Your task to perform on an android device: Open location settings Image 0: 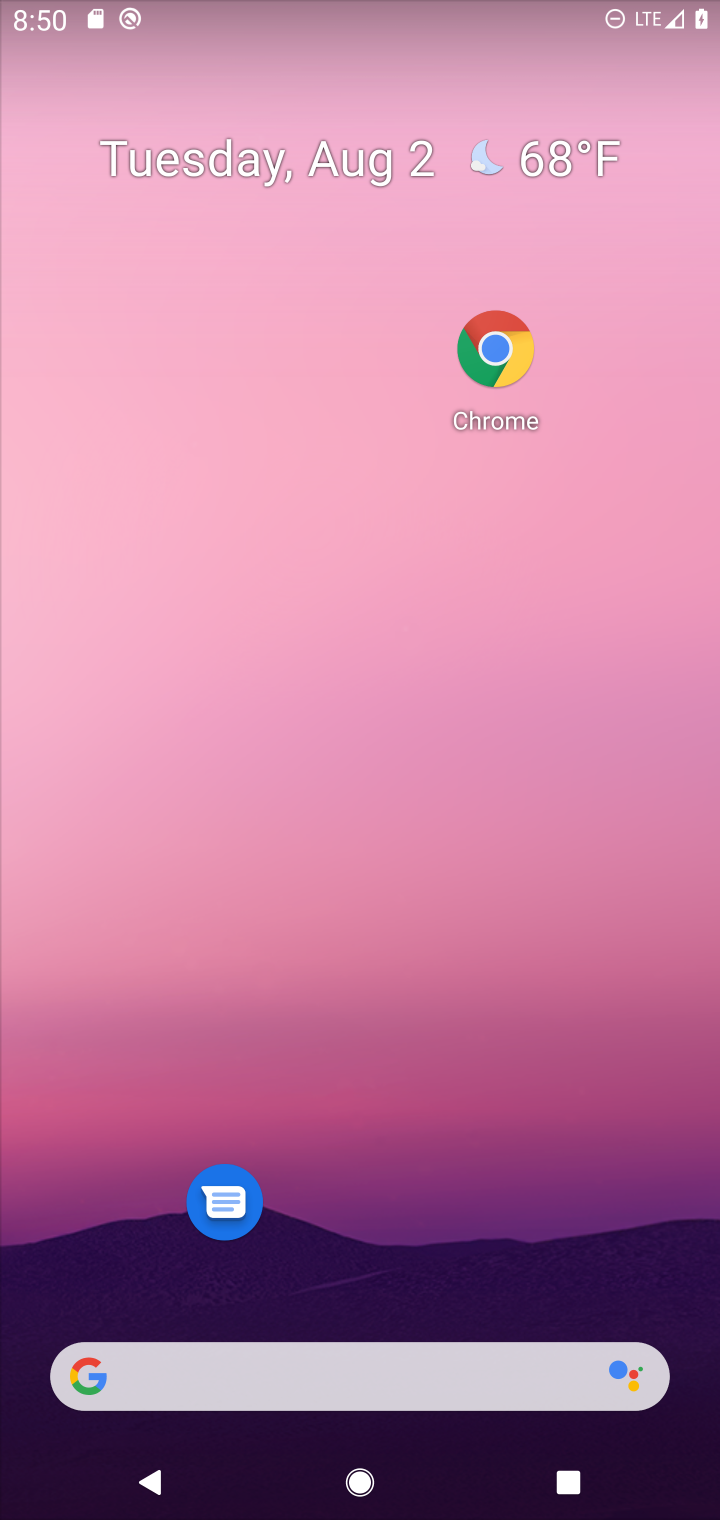
Step 0: drag from (417, 1084) to (404, 4)
Your task to perform on an android device: Open location settings Image 1: 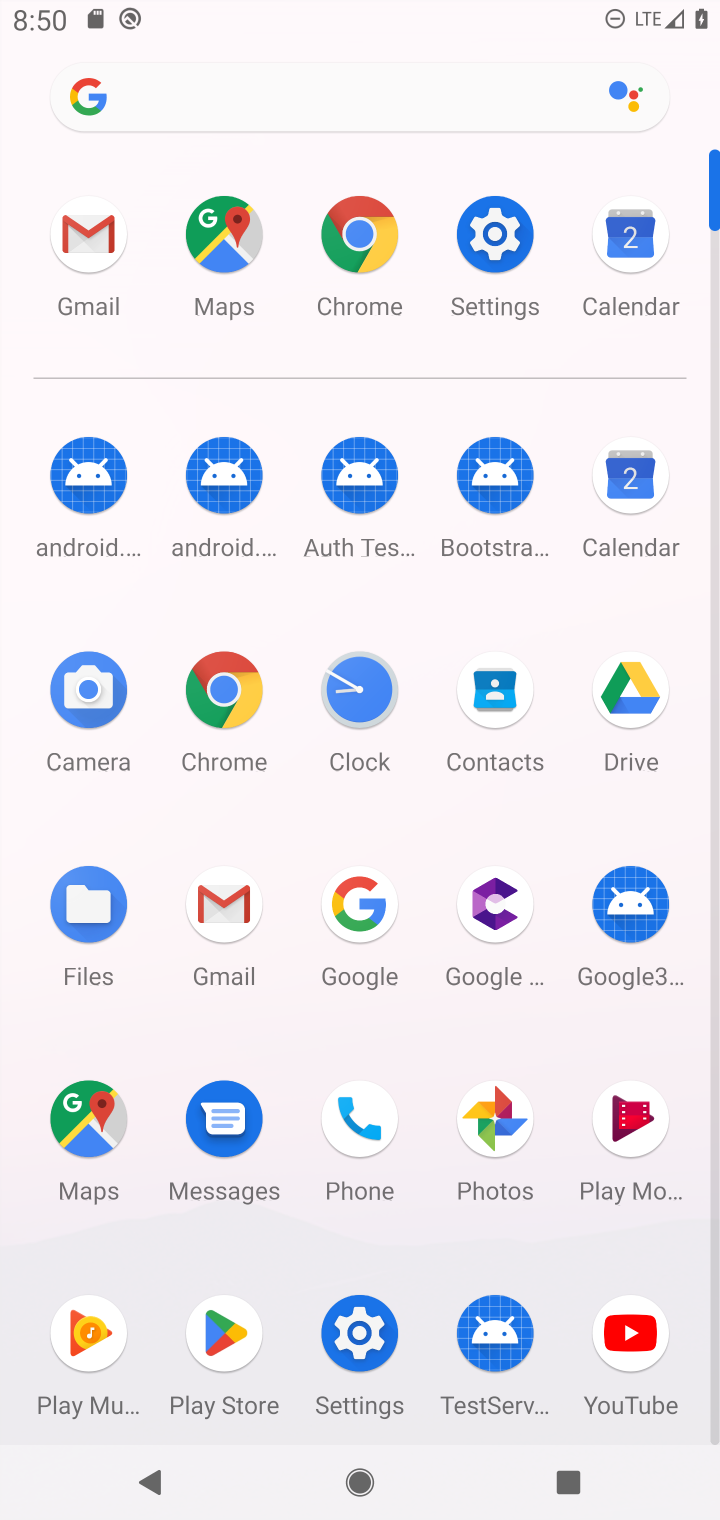
Step 1: click (494, 242)
Your task to perform on an android device: Open location settings Image 2: 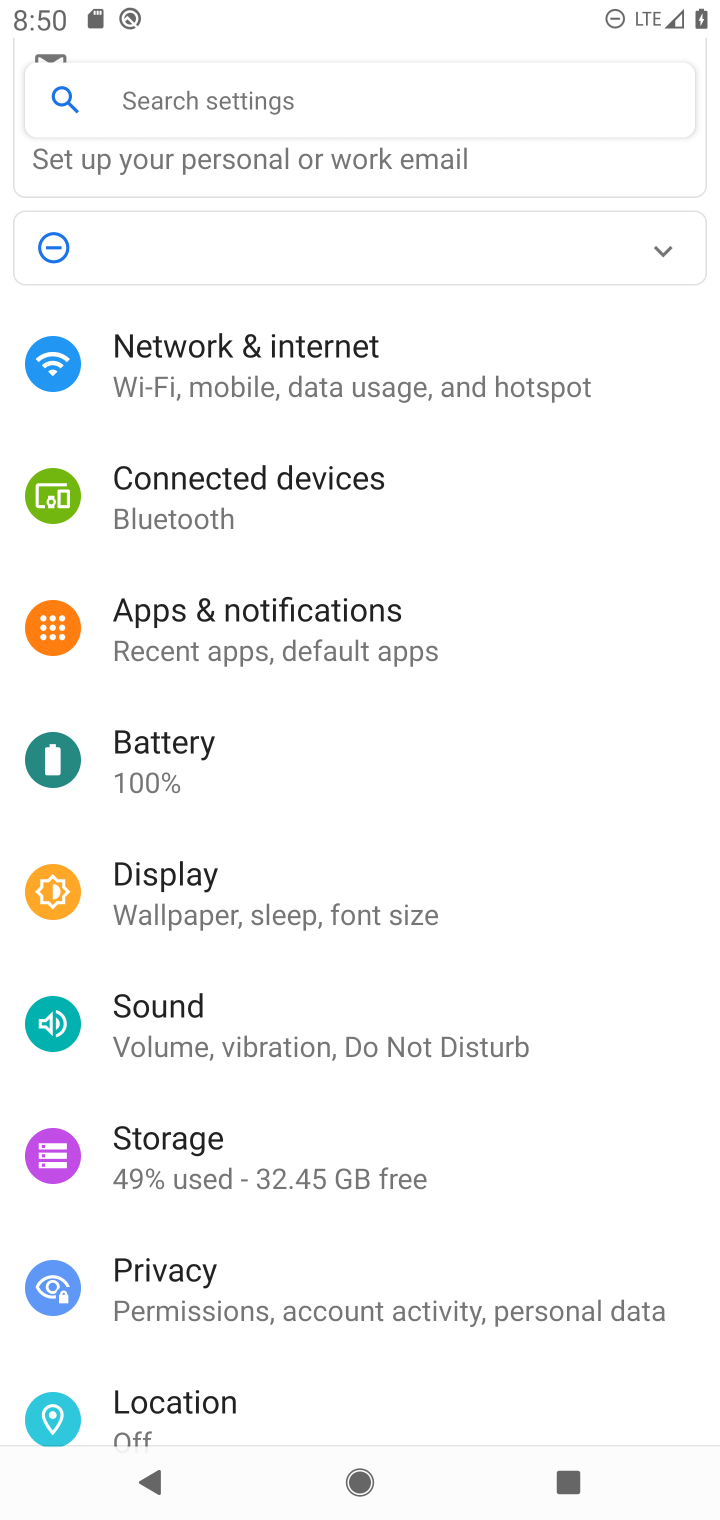
Step 2: click (181, 1415)
Your task to perform on an android device: Open location settings Image 3: 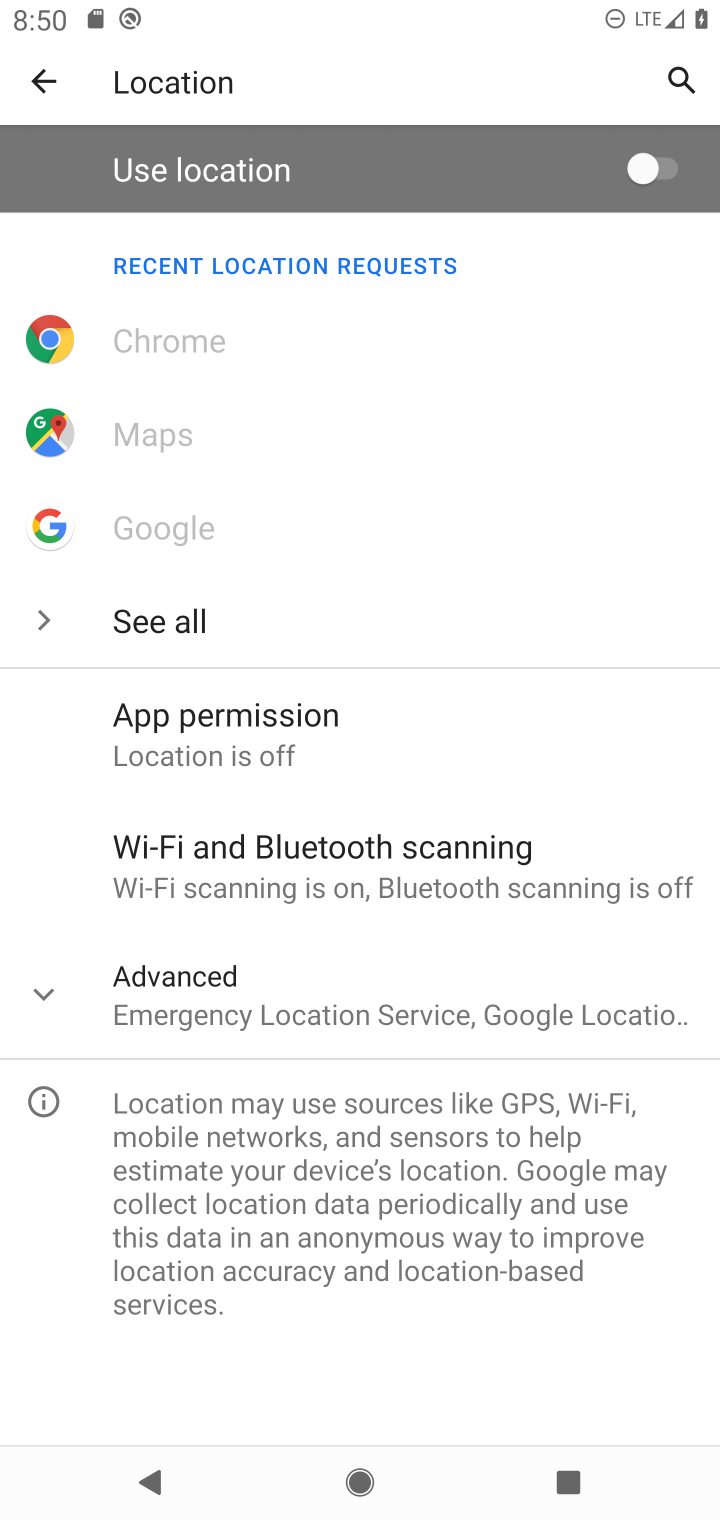
Step 3: task complete